Your task to perform on an android device: turn off improve location accuracy Image 0: 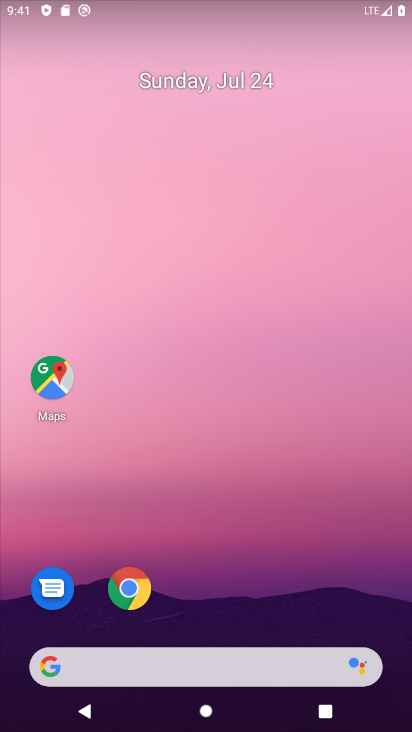
Step 0: drag from (168, 255) to (175, 6)
Your task to perform on an android device: turn off improve location accuracy Image 1: 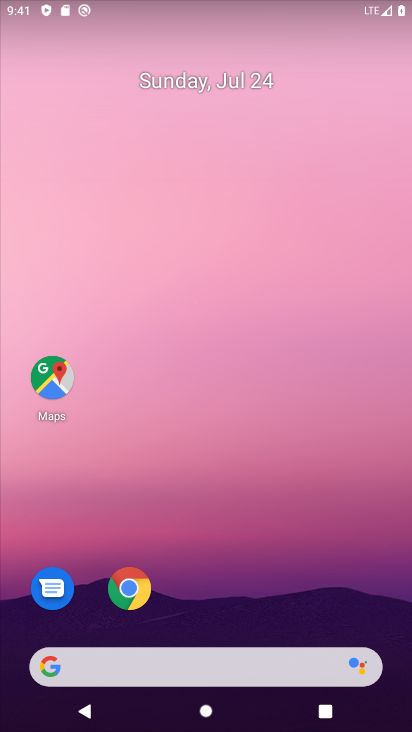
Step 1: drag from (253, 610) to (245, 22)
Your task to perform on an android device: turn off improve location accuracy Image 2: 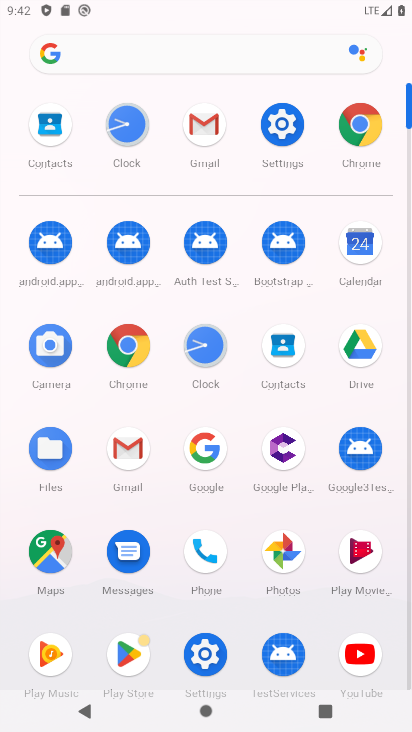
Step 2: click (279, 128)
Your task to perform on an android device: turn off improve location accuracy Image 3: 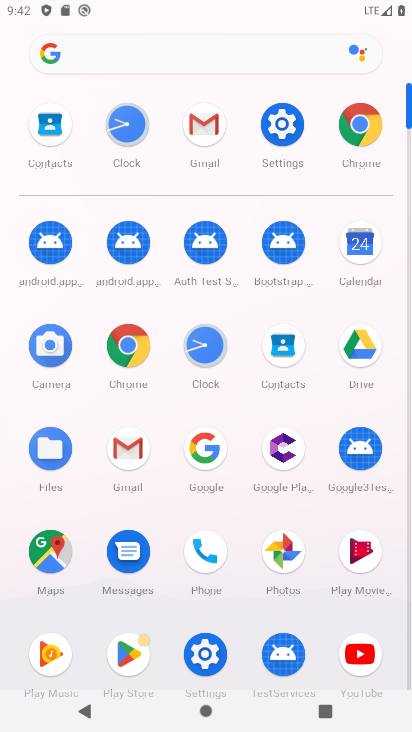
Step 3: click (279, 128)
Your task to perform on an android device: turn off improve location accuracy Image 4: 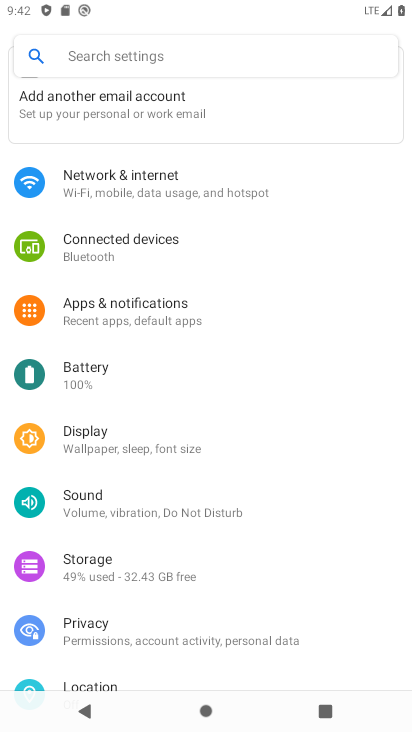
Step 4: click (109, 673)
Your task to perform on an android device: turn off improve location accuracy Image 5: 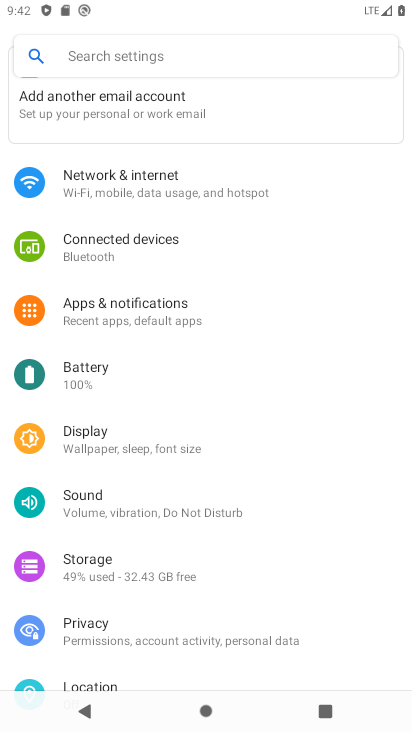
Step 5: click (109, 673)
Your task to perform on an android device: turn off improve location accuracy Image 6: 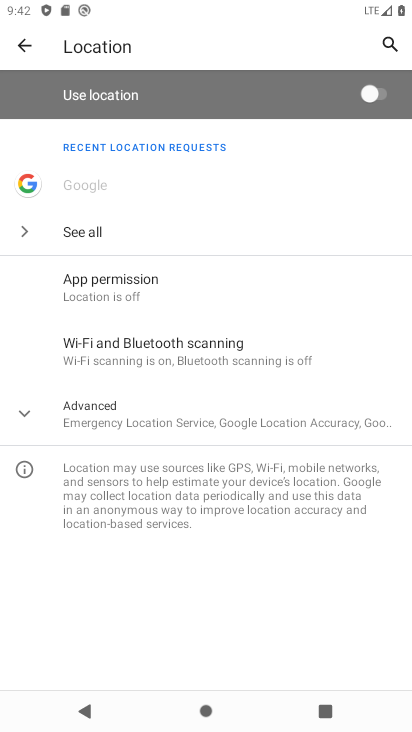
Step 6: click (191, 417)
Your task to perform on an android device: turn off improve location accuracy Image 7: 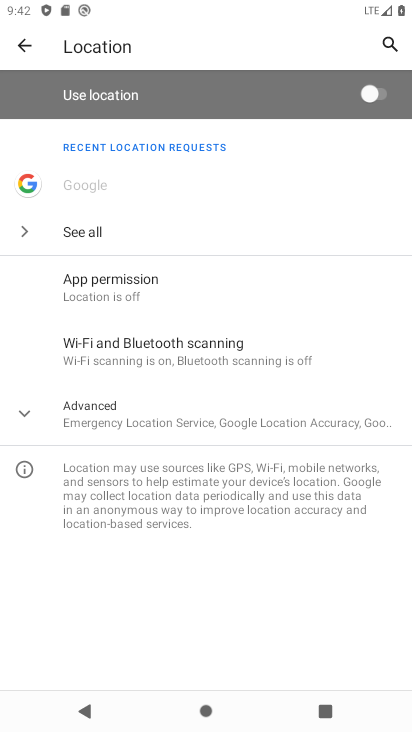
Step 7: click (191, 417)
Your task to perform on an android device: turn off improve location accuracy Image 8: 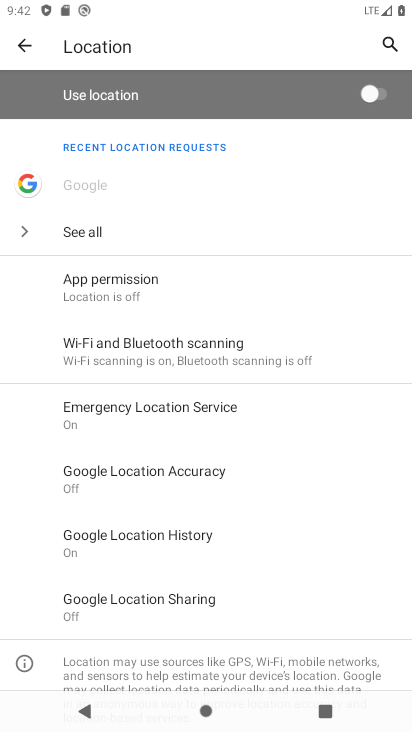
Step 8: click (179, 473)
Your task to perform on an android device: turn off improve location accuracy Image 9: 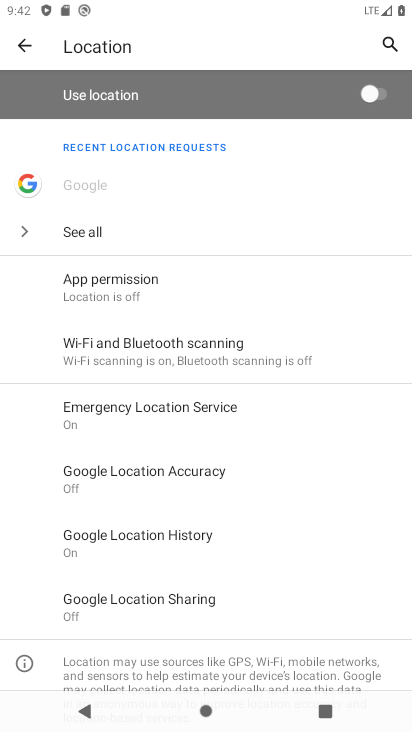
Step 9: click (179, 473)
Your task to perform on an android device: turn off improve location accuracy Image 10: 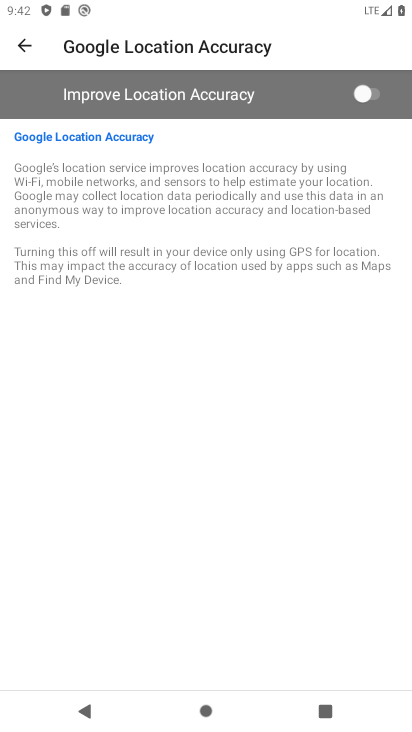
Step 10: task complete